Your task to perform on an android device: Open maps Image 0: 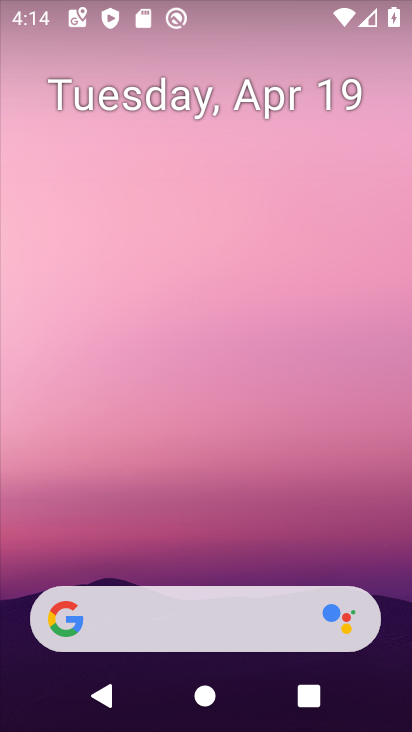
Step 0: drag from (194, 568) to (238, 72)
Your task to perform on an android device: Open maps Image 1: 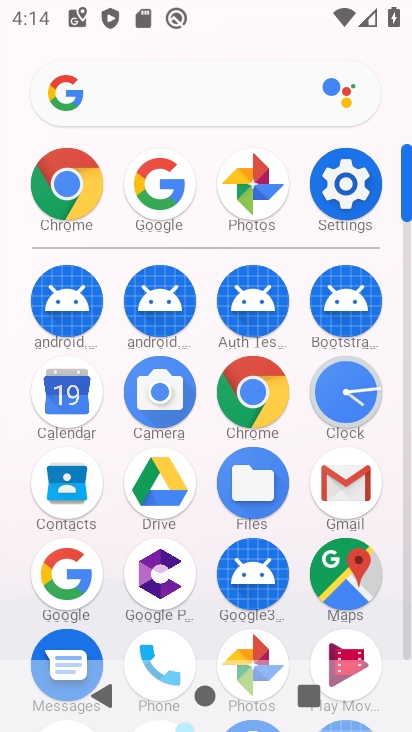
Step 1: drag from (207, 494) to (216, 338)
Your task to perform on an android device: Open maps Image 2: 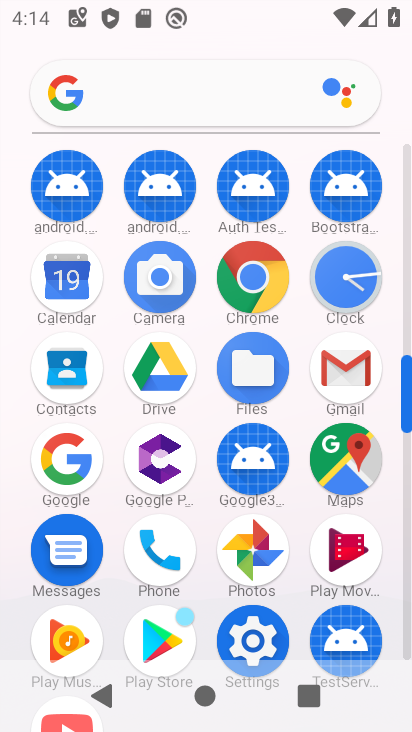
Step 2: click (350, 463)
Your task to perform on an android device: Open maps Image 3: 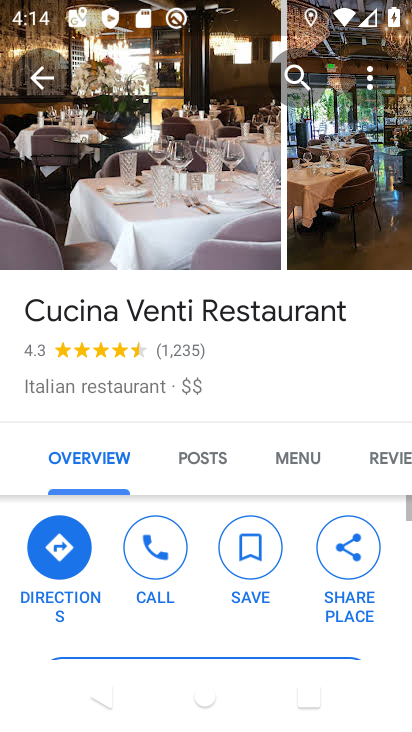
Step 3: task complete